Your task to perform on an android device: change the clock display to analog Image 0: 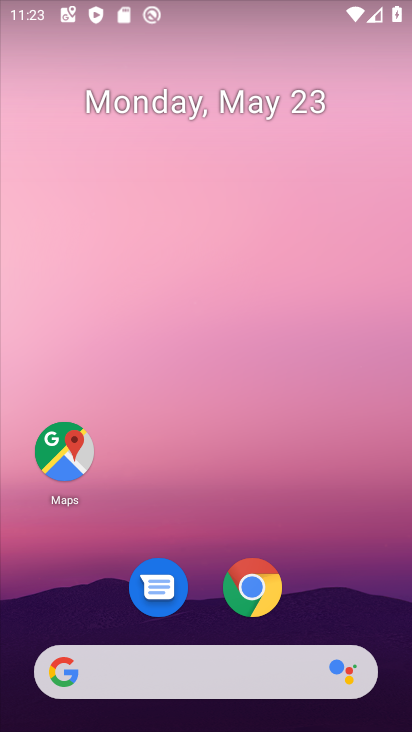
Step 0: drag from (387, 634) to (218, 115)
Your task to perform on an android device: change the clock display to analog Image 1: 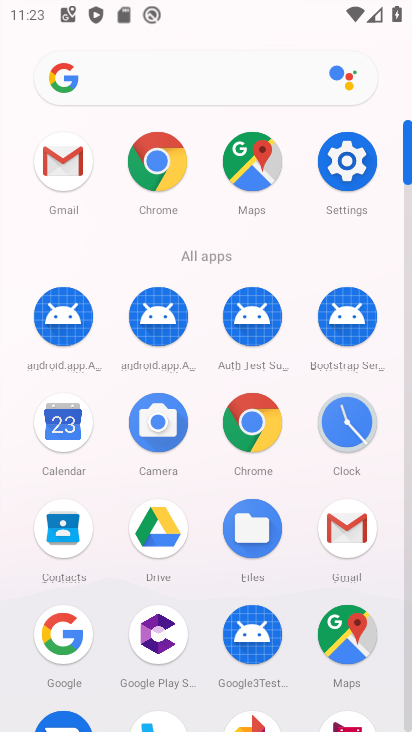
Step 1: click (356, 421)
Your task to perform on an android device: change the clock display to analog Image 2: 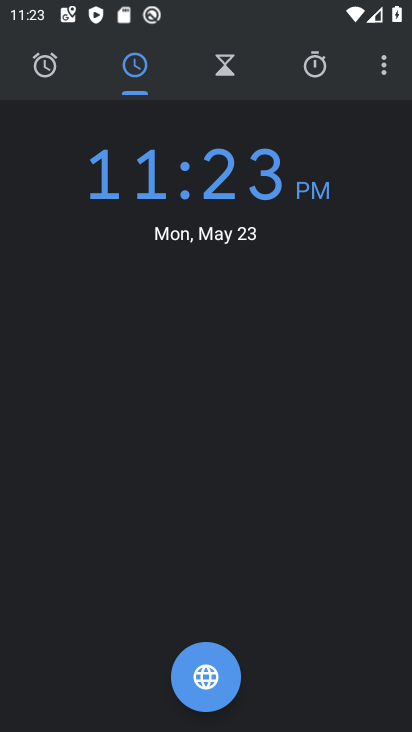
Step 2: click (389, 71)
Your task to perform on an android device: change the clock display to analog Image 3: 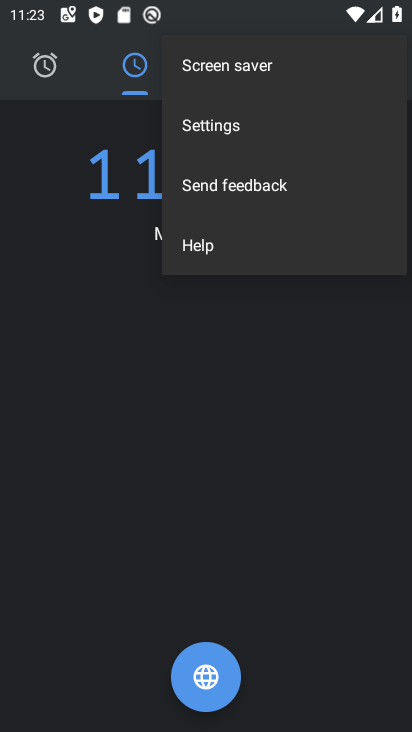
Step 3: click (326, 128)
Your task to perform on an android device: change the clock display to analog Image 4: 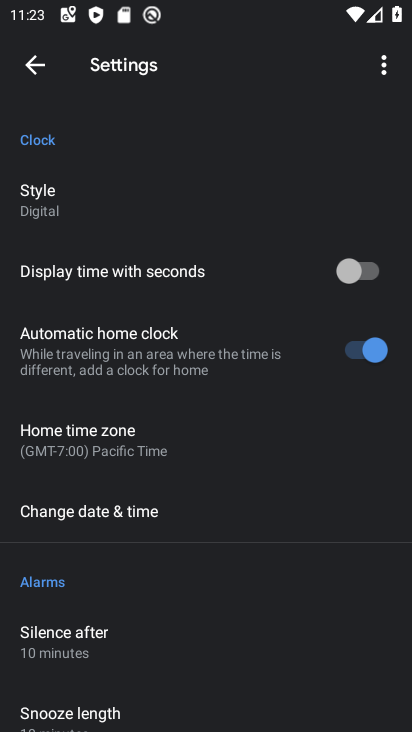
Step 4: click (120, 208)
Your task to perform on an android device: change the clock display to analog Image 5: 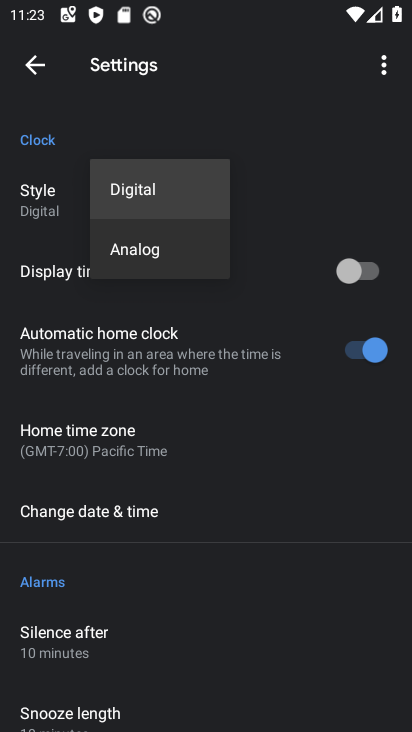
Step 5: click (128, 250)
Your task to perform on an android device: change the clock display to analog Image 6: 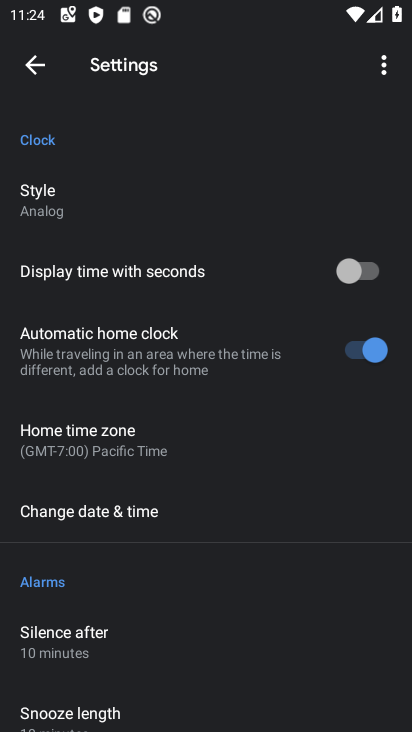
Step 6: task complete